Your task to perform on an android device: Search for Italian restaurants on Maps Image 0: 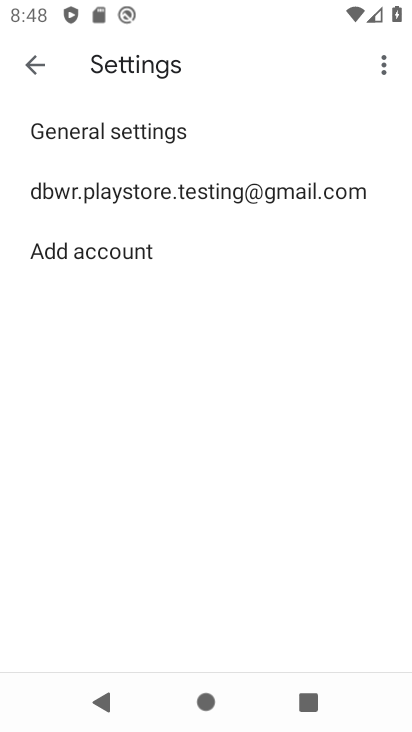
Step 0: press back button
Your task to perform on an android device: Search for Italian restaurants on Maps Image 1: 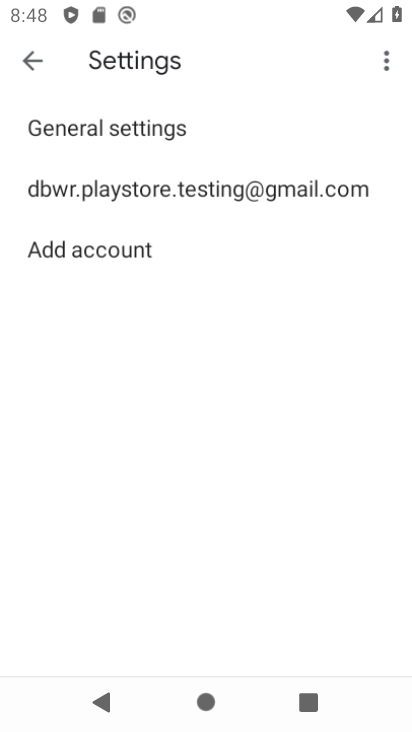
Step 1: press home button
Your task to perform on an android device: Search for Italian restaurants on Maps Image 2: 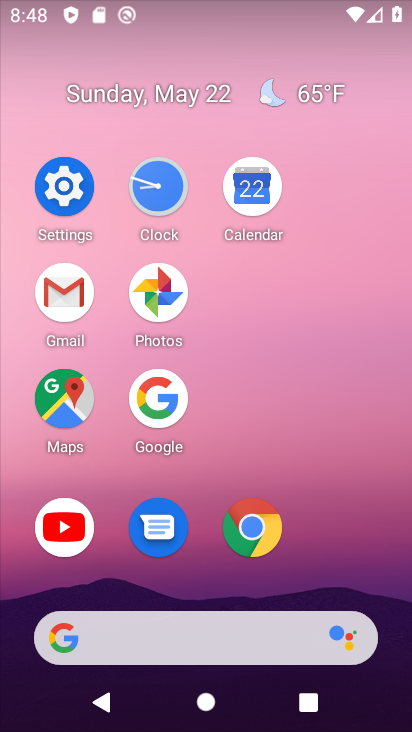
Step 2: click (66, 395)
Your task to perform on an android device: Search for Italian restaurants on Maps Image 3: 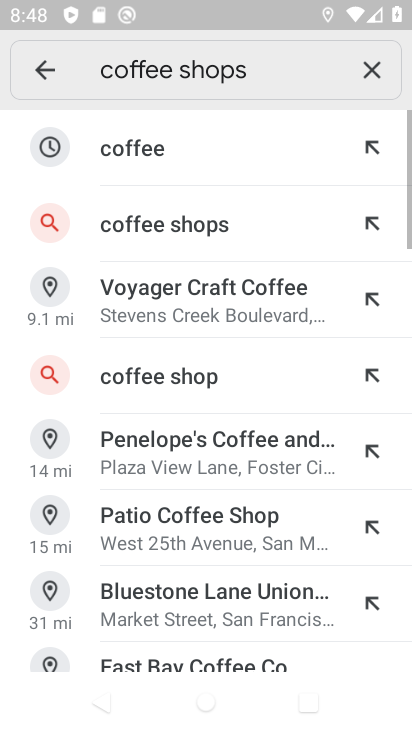
Step 3: click (382, 73)
Your task to perform on an android device: Search for Italian restaurants on Maps Image 4: 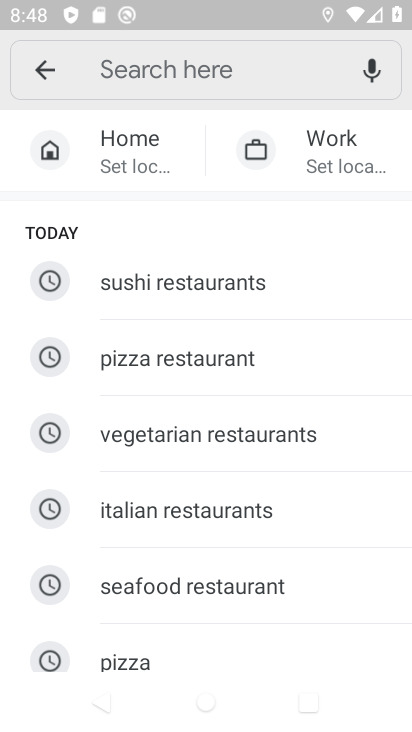
Step 4: click (246, 499)
Your task to perform on an android device: Search for Italian restaurants on Maps Image 5: 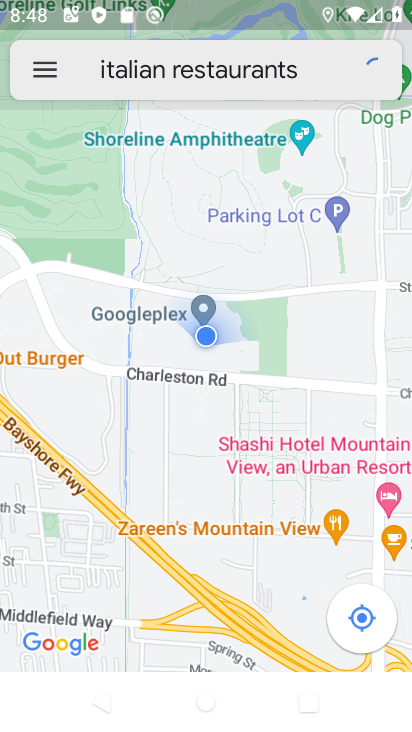
Step 5: task complete